Your task to perform on an android device: change the clock style Image 0: 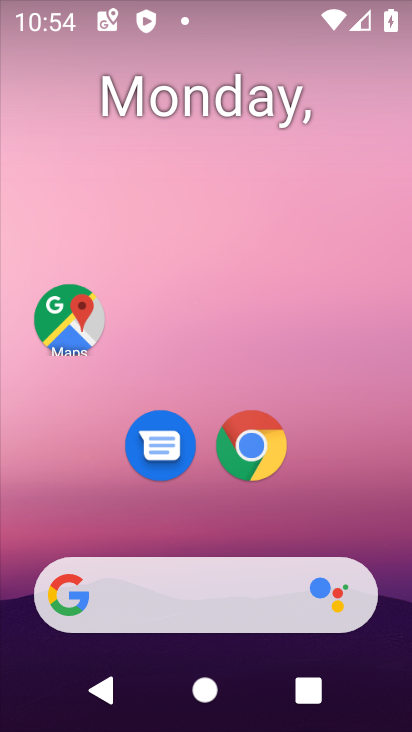
Step 0: drag from (210, 523) to (251, 158)
Your task to perform on an android device: change the clock style Image 1: 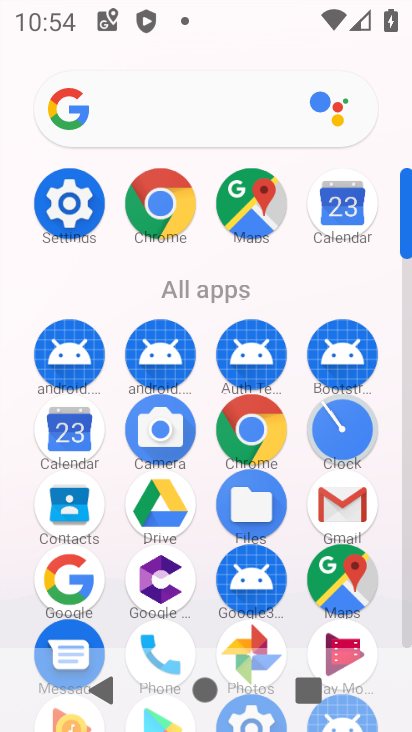
Step 1: click (74, 185)
Your task to perform on an android device: change the clock style Image 2: 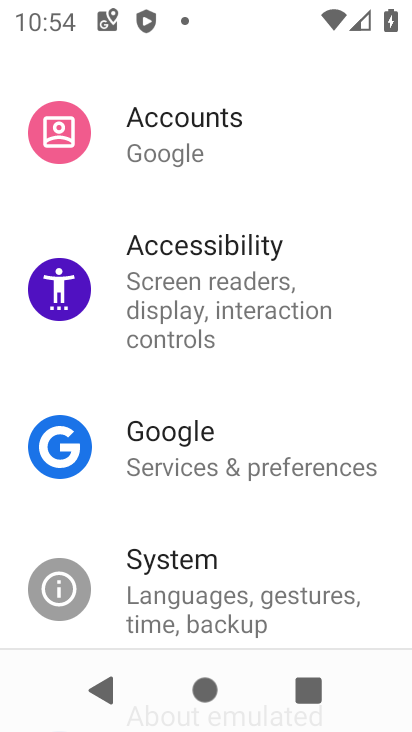
Step 2: press home button
Your task to perform on an android device: change the clock style Image 3: 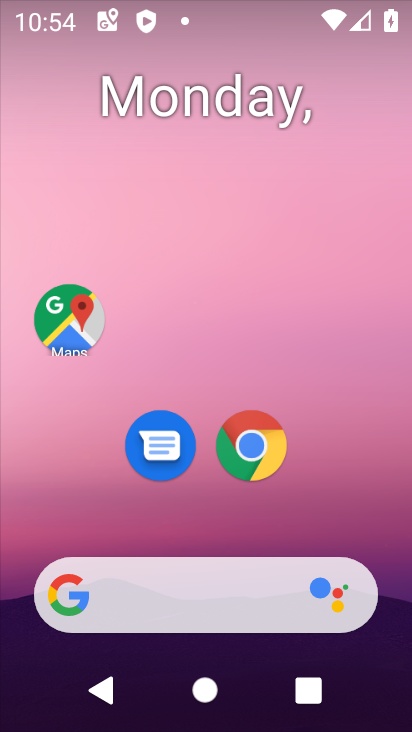
Step 3: drag from (268, 534) to (290, 200)
Your task to perform on an android device: change the clock style Image 4: 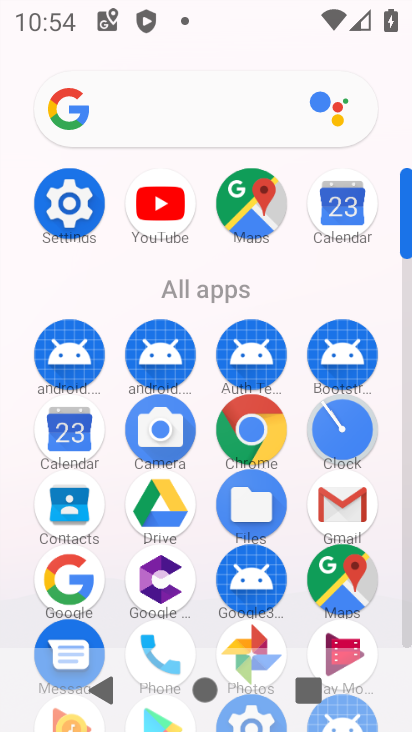
Step 4: click (346, 430)
Your task to perform on an android device: change the clock style Image 5: 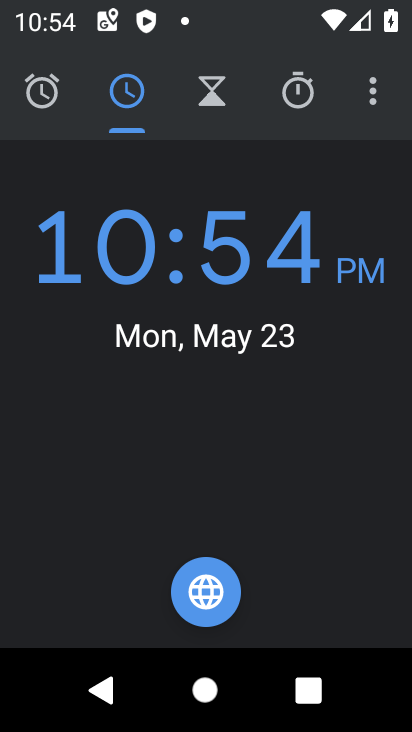
Step 5: click (374, 93)
Your task to perform on an android device: change the clock style Image 6: 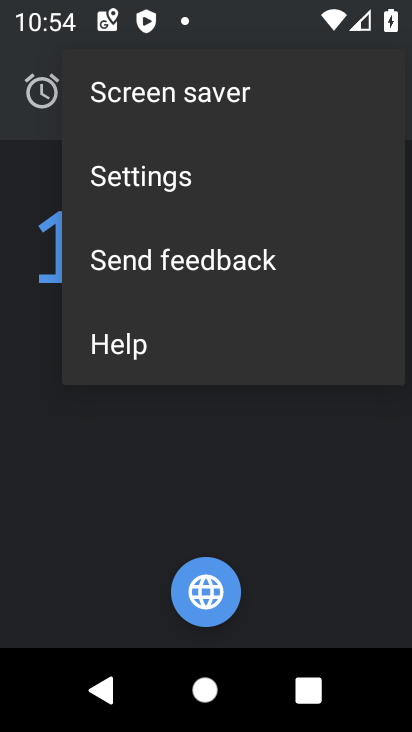
Step 6: click (146, 180)
Your task to perform on an android device: change the clock style Image 7: 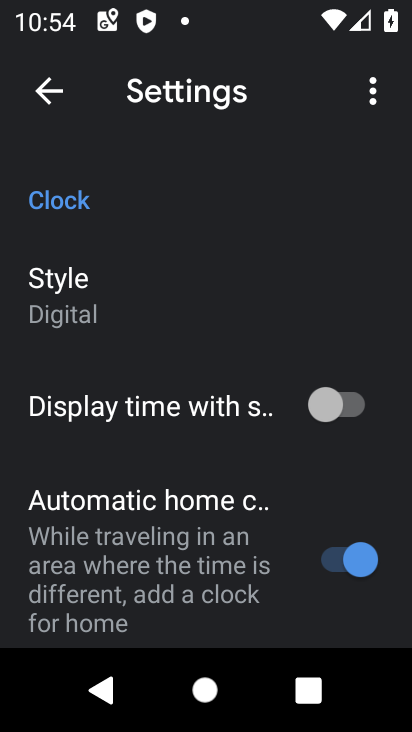
Step 7: click (54, 283)
Your task to perform on an android device: change the clock style Image 8: 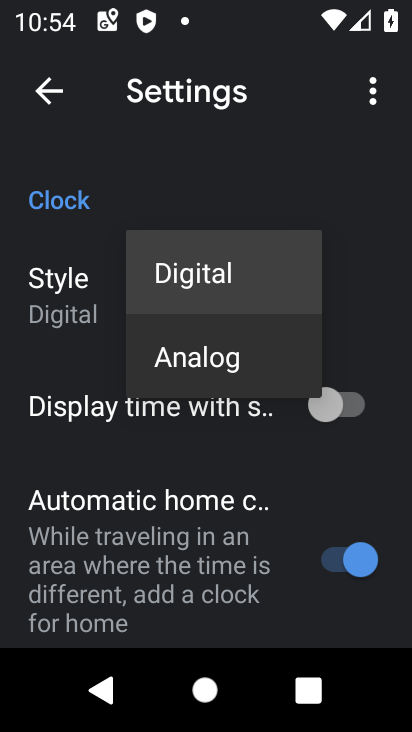
Step 8: click (230, 348)
Your task to perform on an android device: change the clock style Image 9: 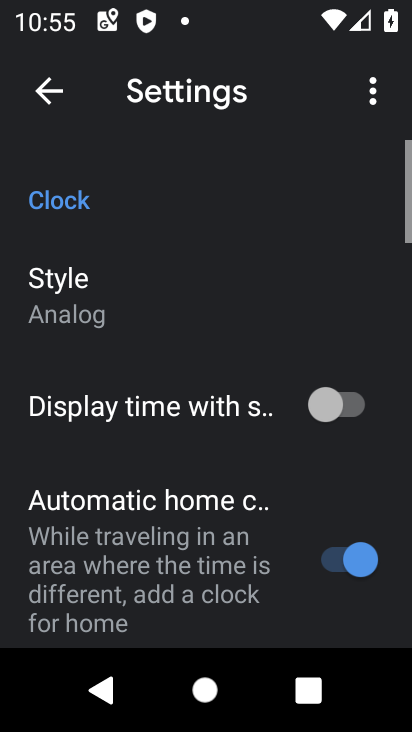
Step 9: task complete